Your task to perform on an android device: Do I have any events tomorrow? Image 0: 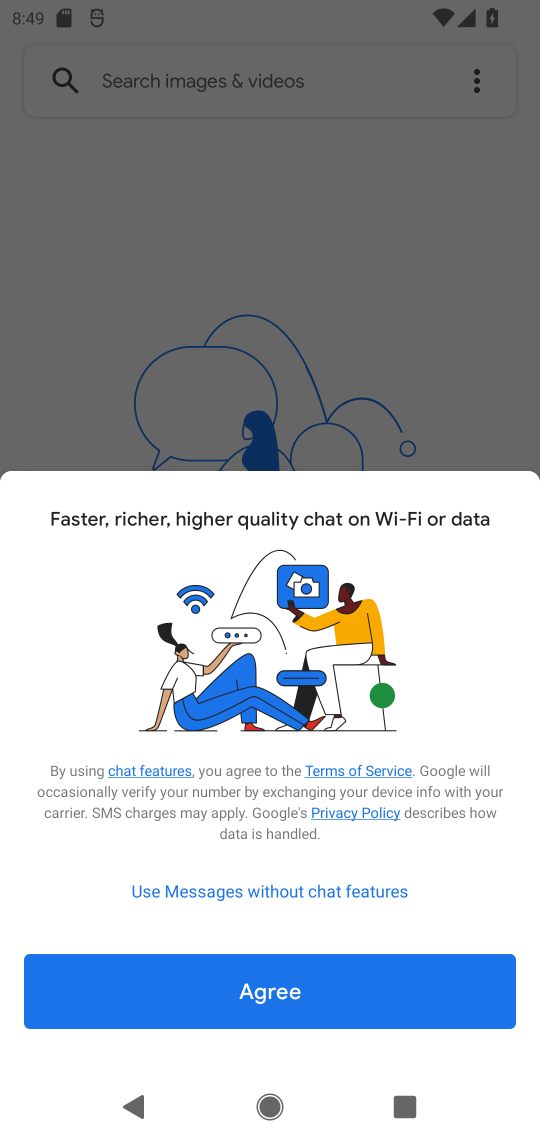
Step 0: press home button
Your task to perform on an android device: Do I have any events tomorrow? Image 1: 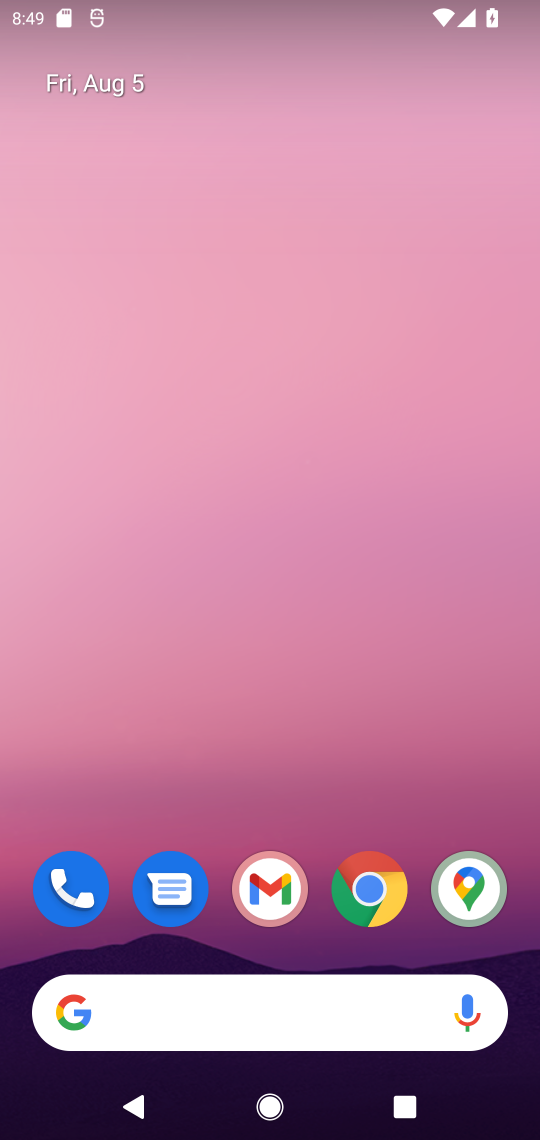
Step 1: click (376, 920)
Your task to perform on an android device: Do I have any events tomorrow? Image 2: 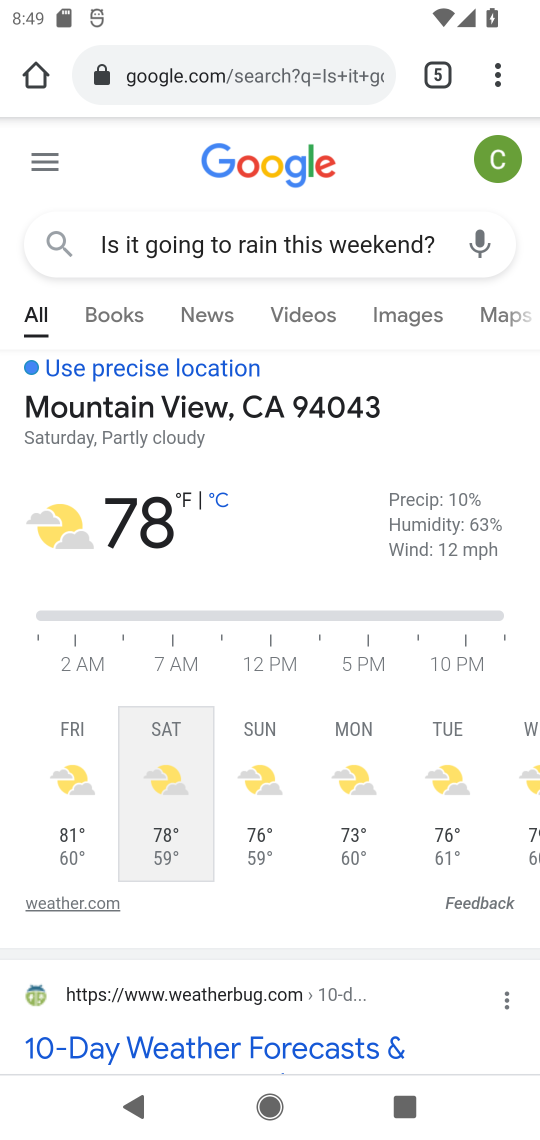
Step 2: click (506, 69)
Your task to perform on an android device: Do I have any events tomorrow? Image 3: 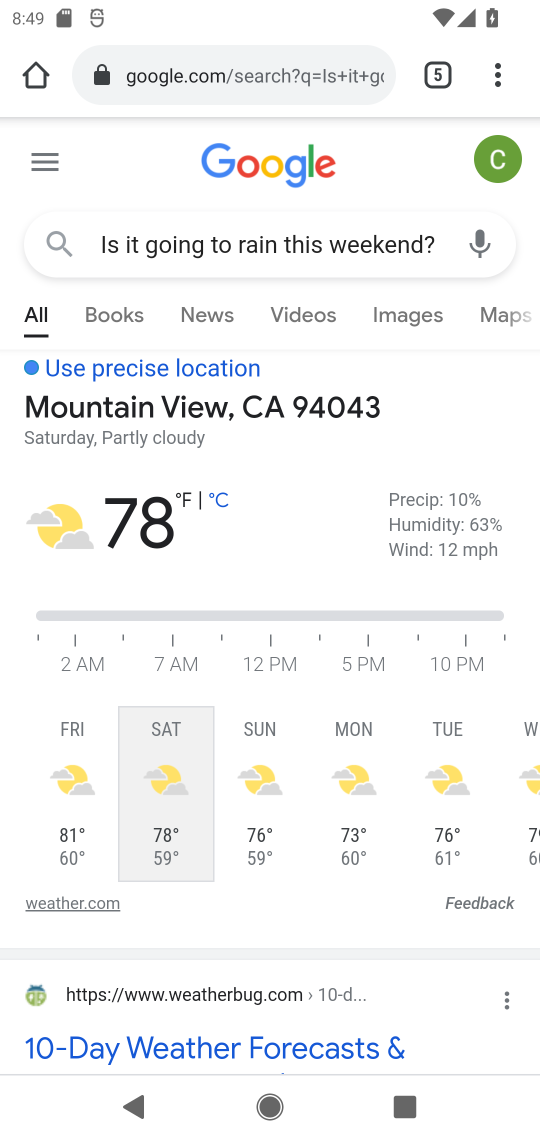
Step 3: click (509, 67)
Your task to perform on an android device: Do I have any events tomorrow? Image 4: 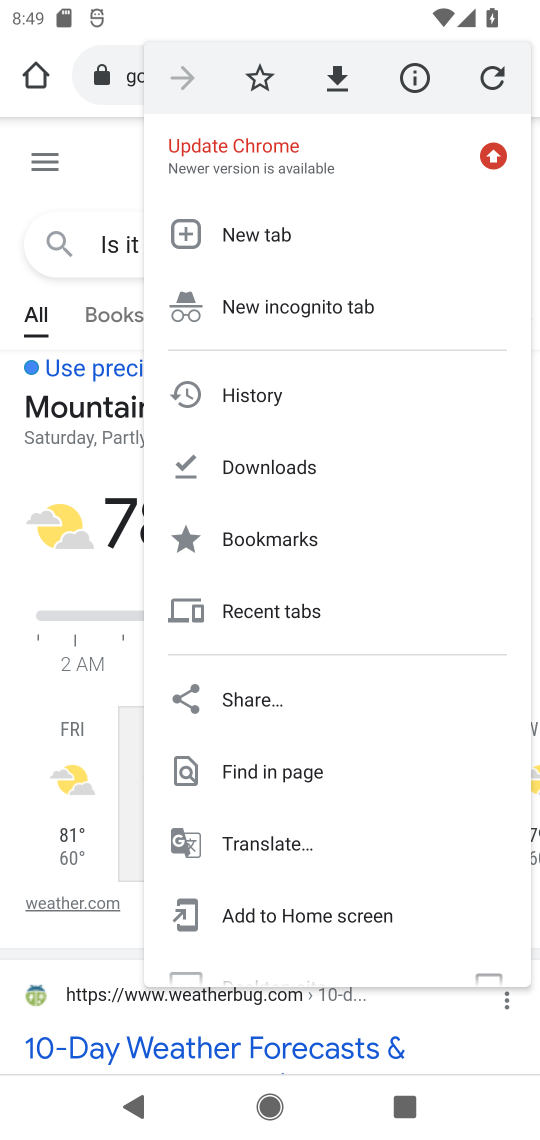
Step 4: click (305, 224)
Your task to perform on an android device: Do I have any events tomorrow? Image 5: 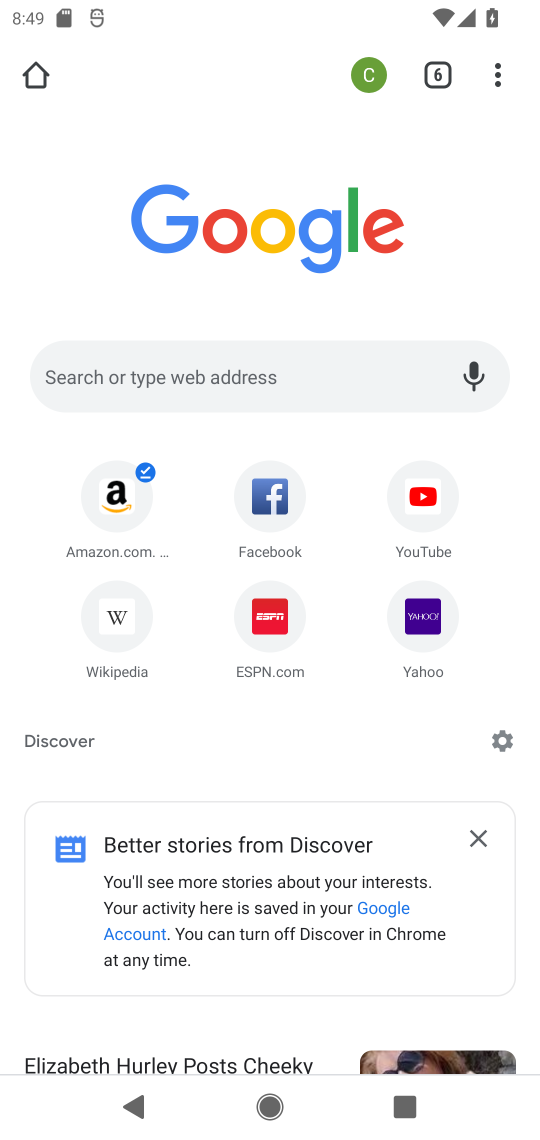
Step 5: click (194, 386)
Your task to perform on an android device: Do I have any events tomorrow? Image 6: 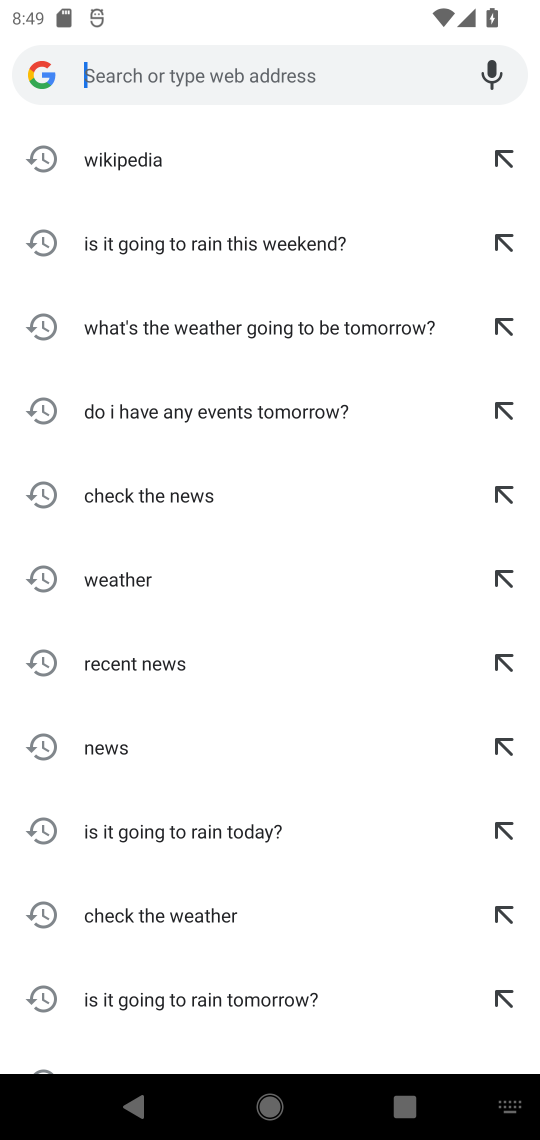
Step 6: type "Do I have any events tomorrow? "
Your task to perform on an android device: Do I have any events tomorrow? Image 7: 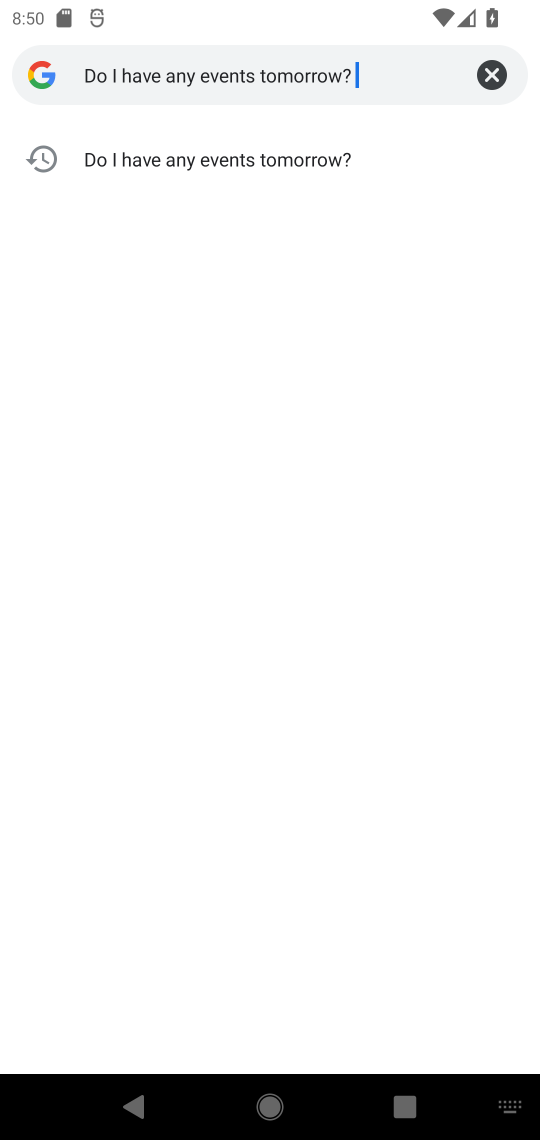
Step 7: click (252, 169)
Your task to perform on an android device: Do I have any events tomorrow? Image 8: 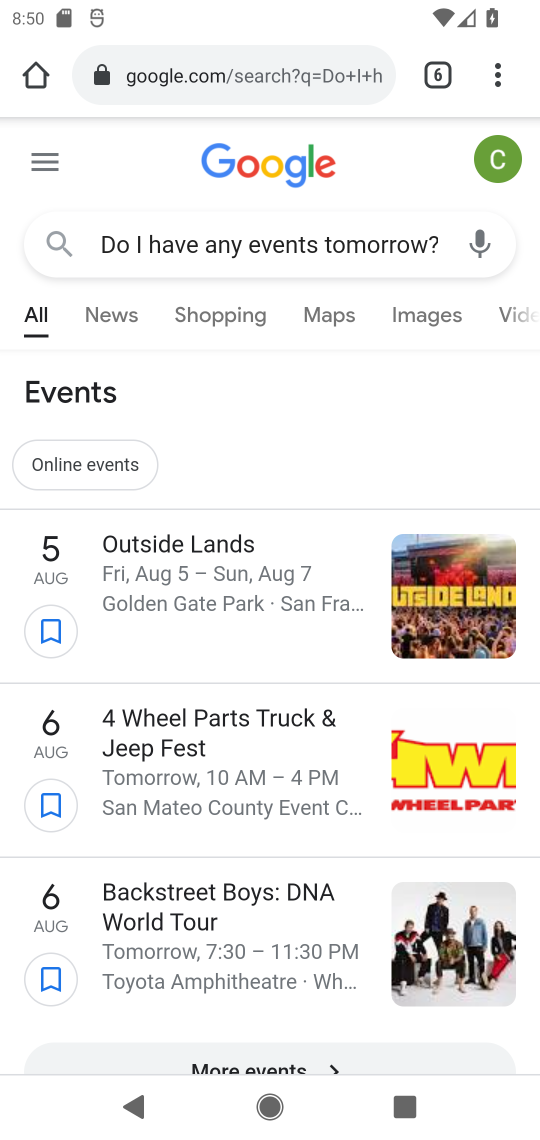
Step 8: task complete